Your task to perform on an android device: Show the shopping cart on walmart.com. Add "apple airpods pro" to the cart on walmart.com Image 0: 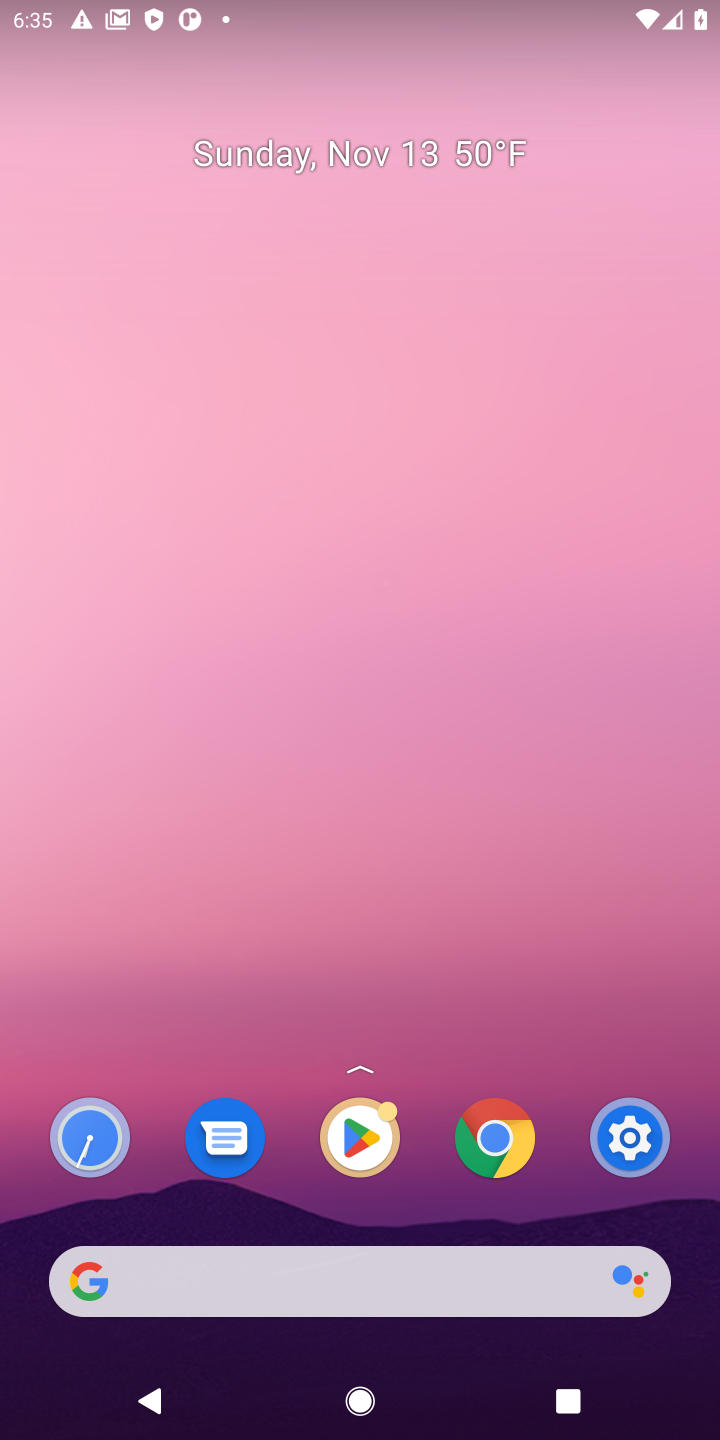
Step 0: drag from (311, 1173) to (206, 188)
Your task to perform on an android device: Show the shopping cart on walmart.com. Add "apple airpods pro" to the cart on walmart.com Image 1: 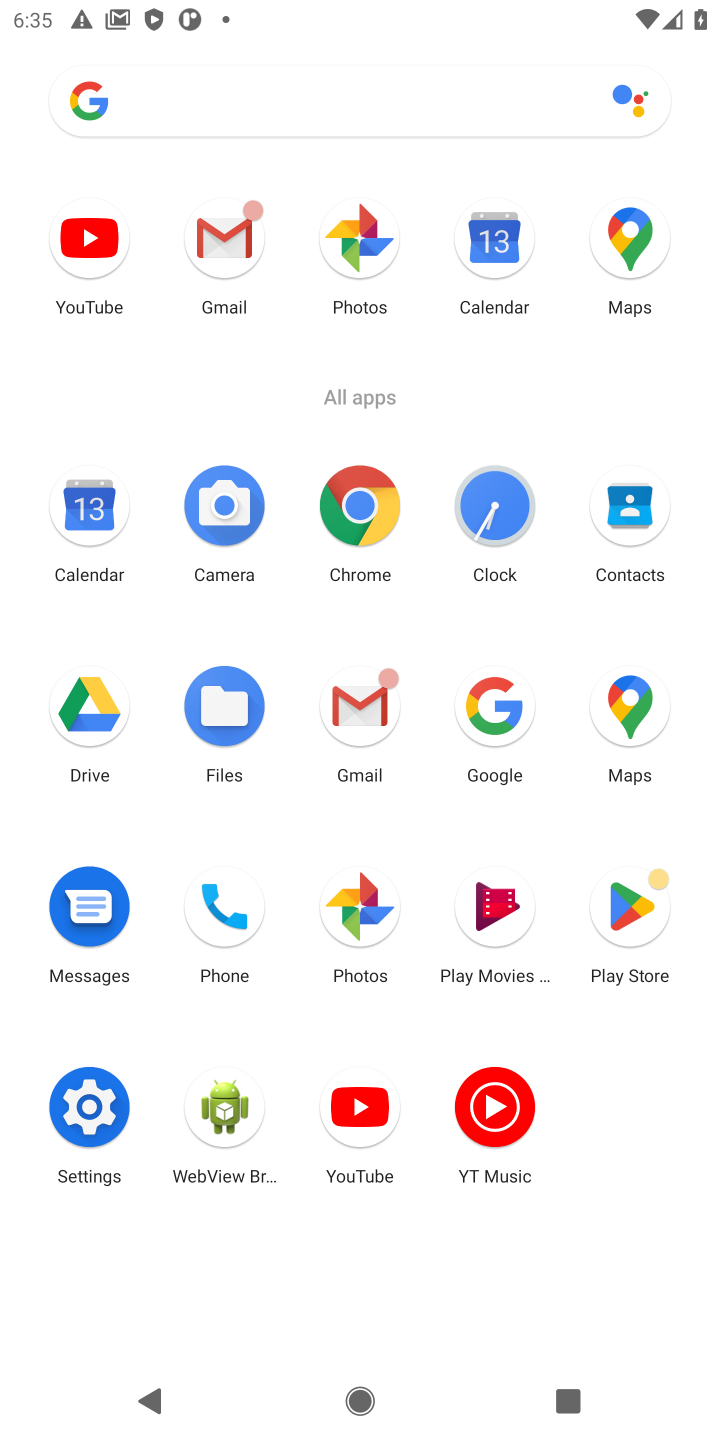
Step 1: click (354, 513)
Your task to perform on an android device: Show the shopping cart on walmart.com. Add "apple airpods pro" to the cart on walmart.com Image 2: 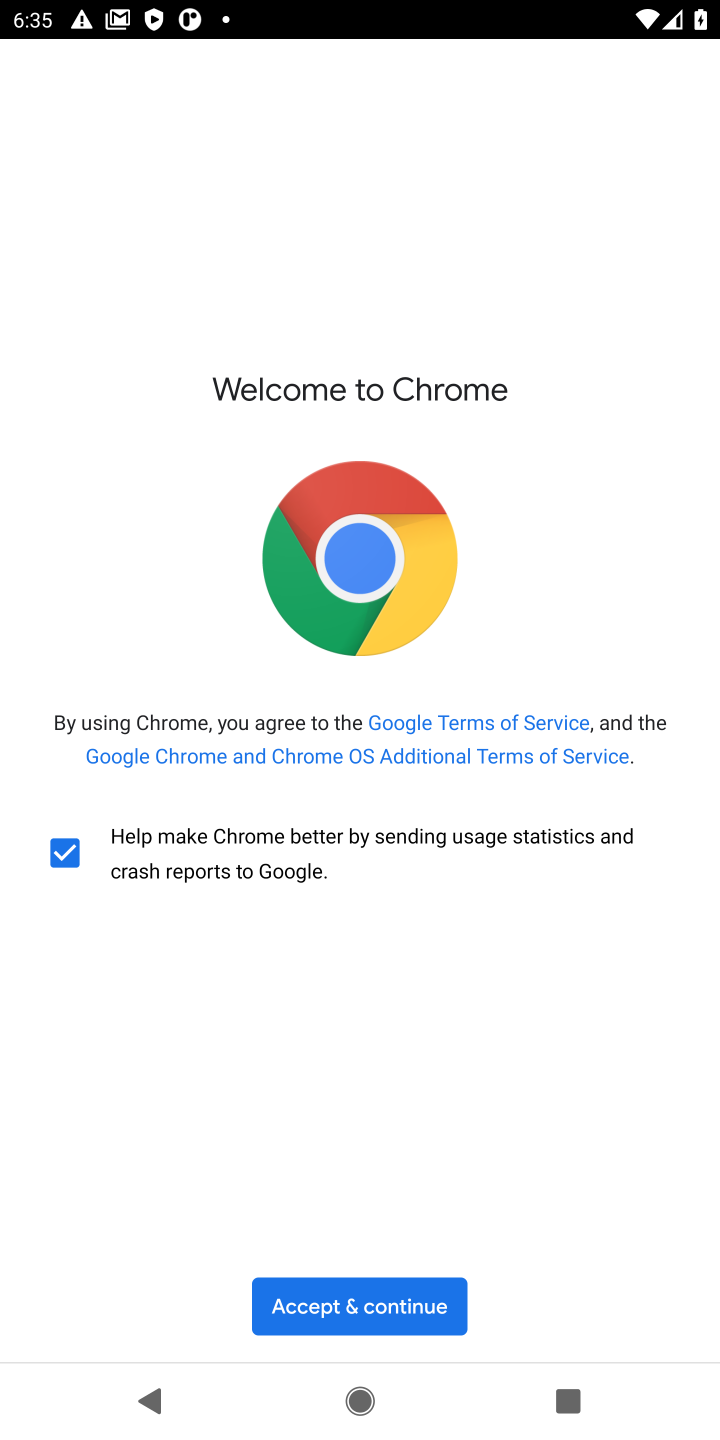
Step 2: click (311, 1290)
Your task to perform on an android device: Show the shopping cart on walmart.com. Add "apple airpods pro" to the cart on walmart.com Image 3: 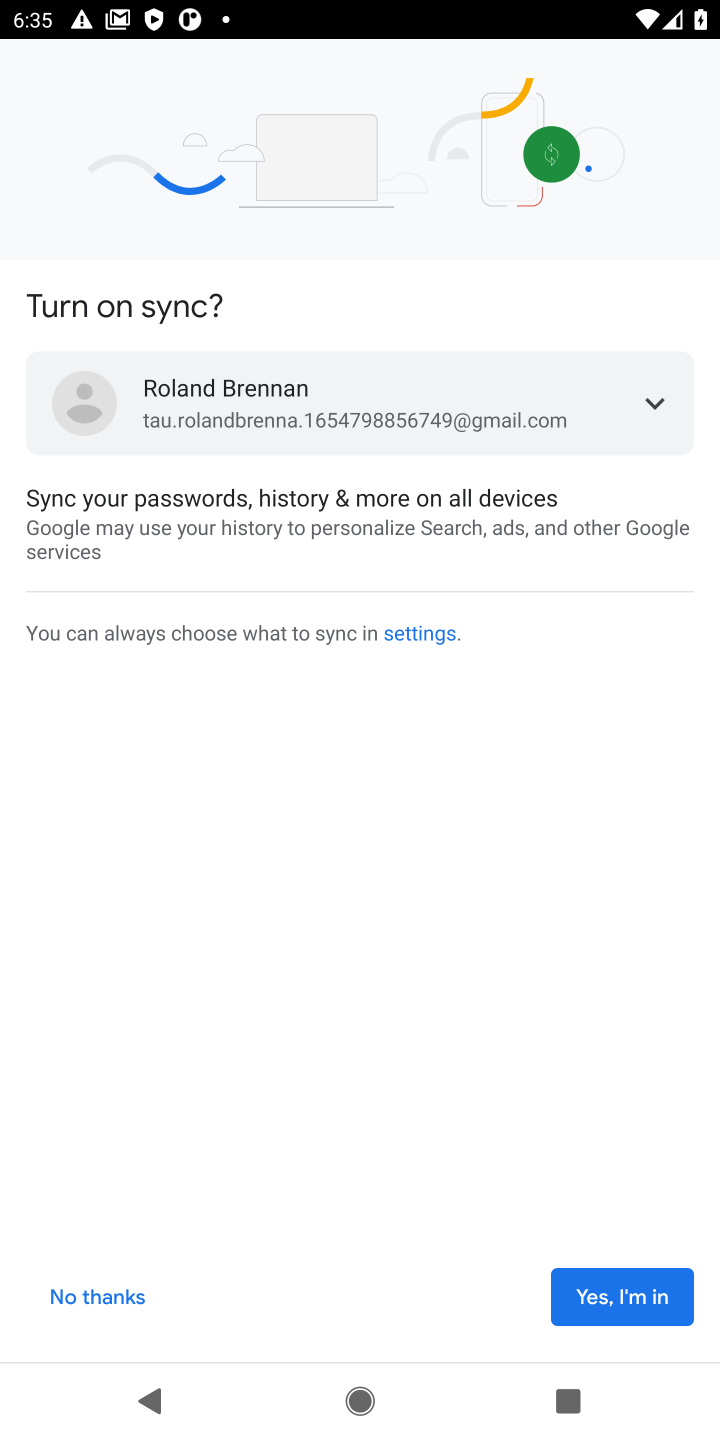
Step 3: click (633, 1288)
Your task to perform on an android device: Show the shopping cart on walmart.com. Add "apple airpods pro" to the cart on walmart.com Image 4: 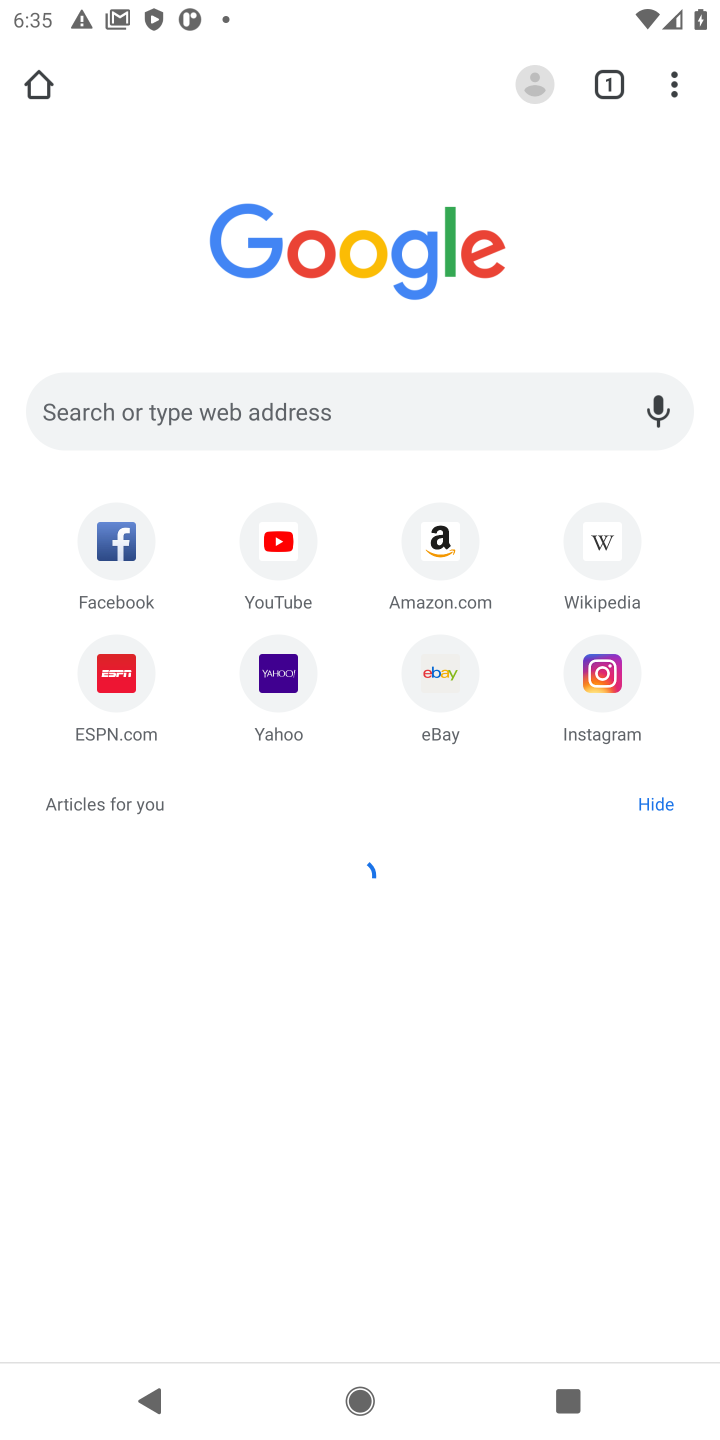
Step 4: click (127, 401)
Your task to perform on an android device: Show the shopping cart on walmart.com. Add "apple airpods pro" to the cart on walmart.com Image 5: 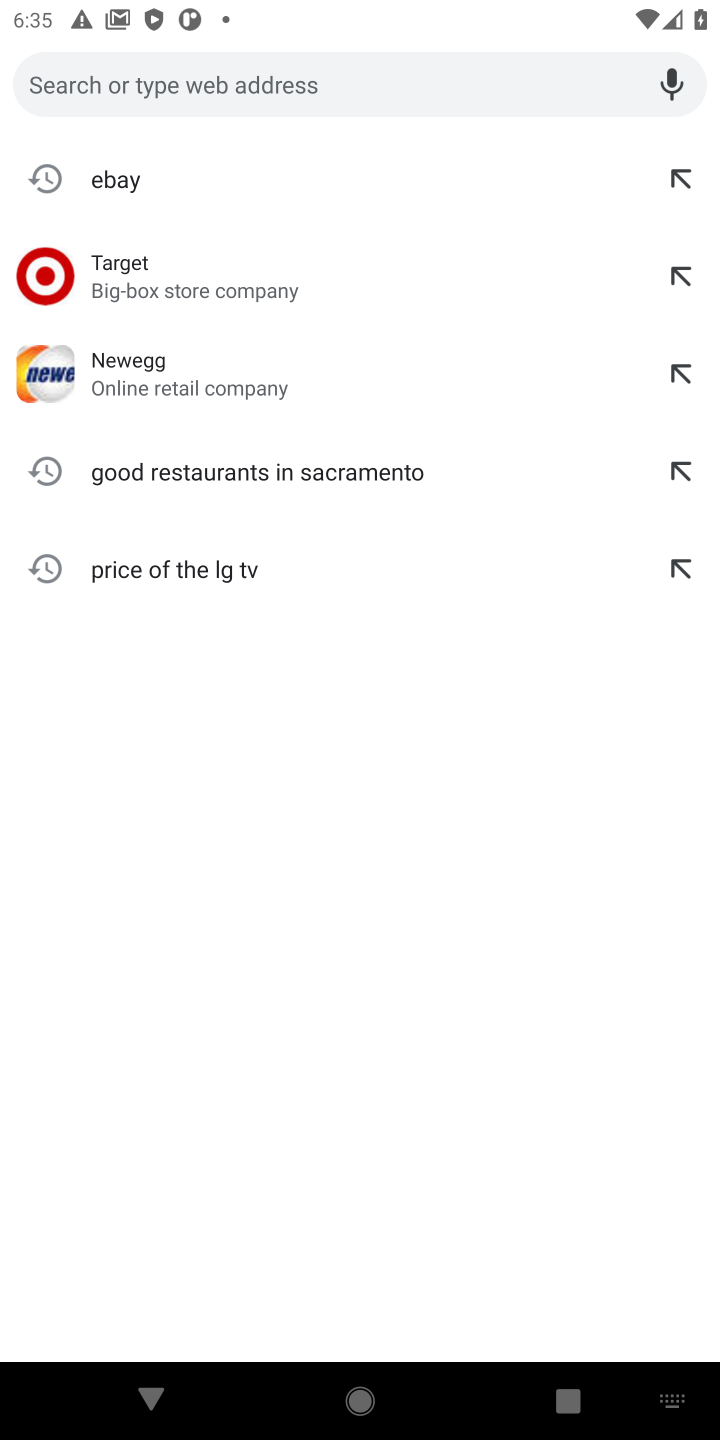
Step 5: type "walmart.com"
Your task to perform on an android device: Show the shopping cart on walmart.com. Add "apple airpods pro" to the cart on walmart.com Image 6: 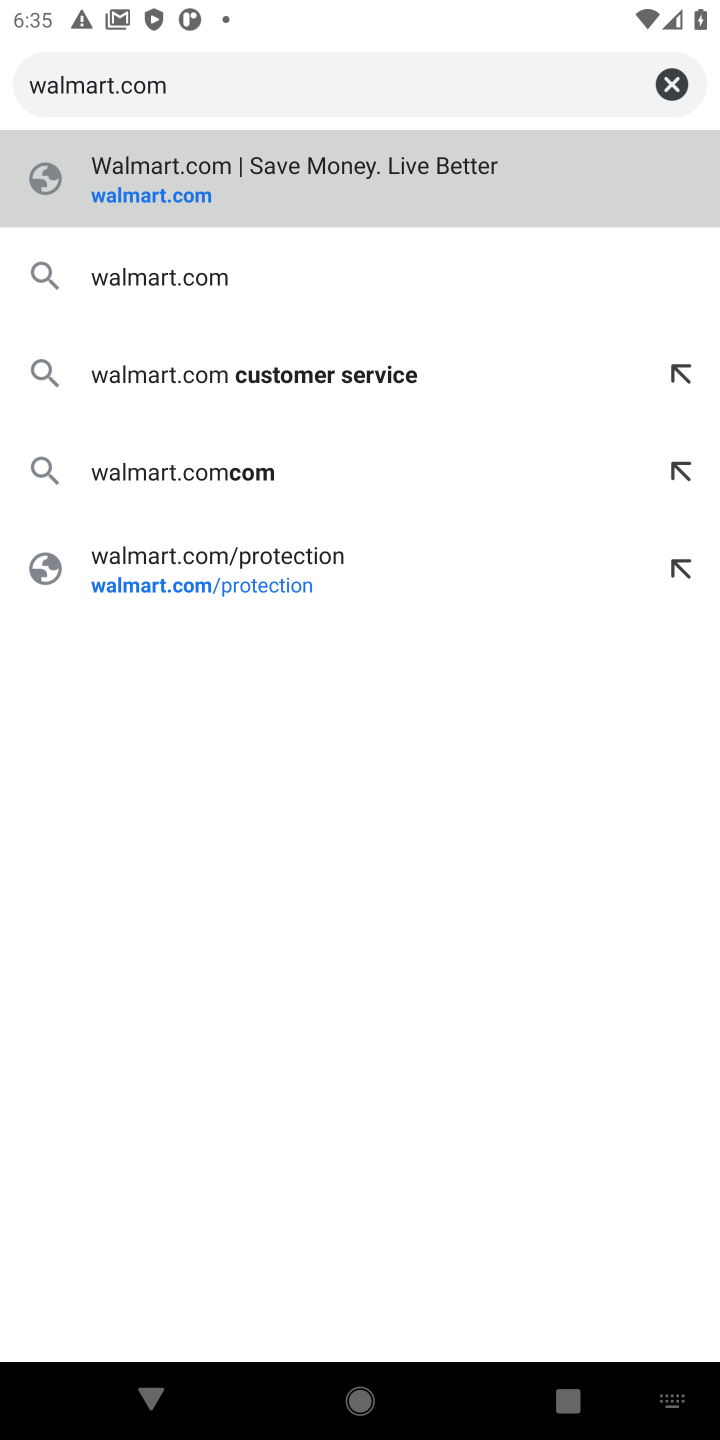
Step 6: press enter
Your task to perform on an android device: Show the shopping cart on walmart.com. Add "apple airpods pro" to the cart on walmart.com Image 7: 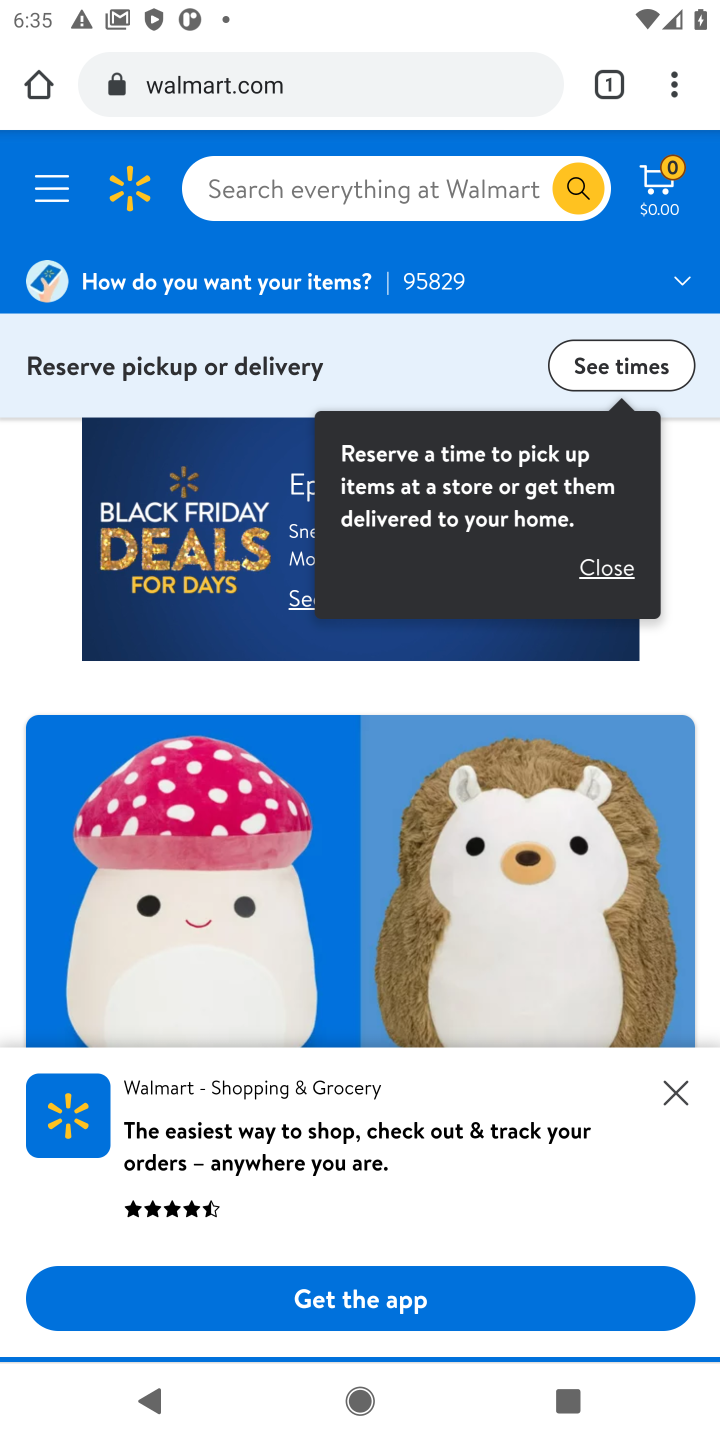
Step 7: click (318, 154)
Your task to perform on an android device: Show the shopping cart on walmart.com. Add "apple airpods pro" to the cart on walmart.com Image 8: 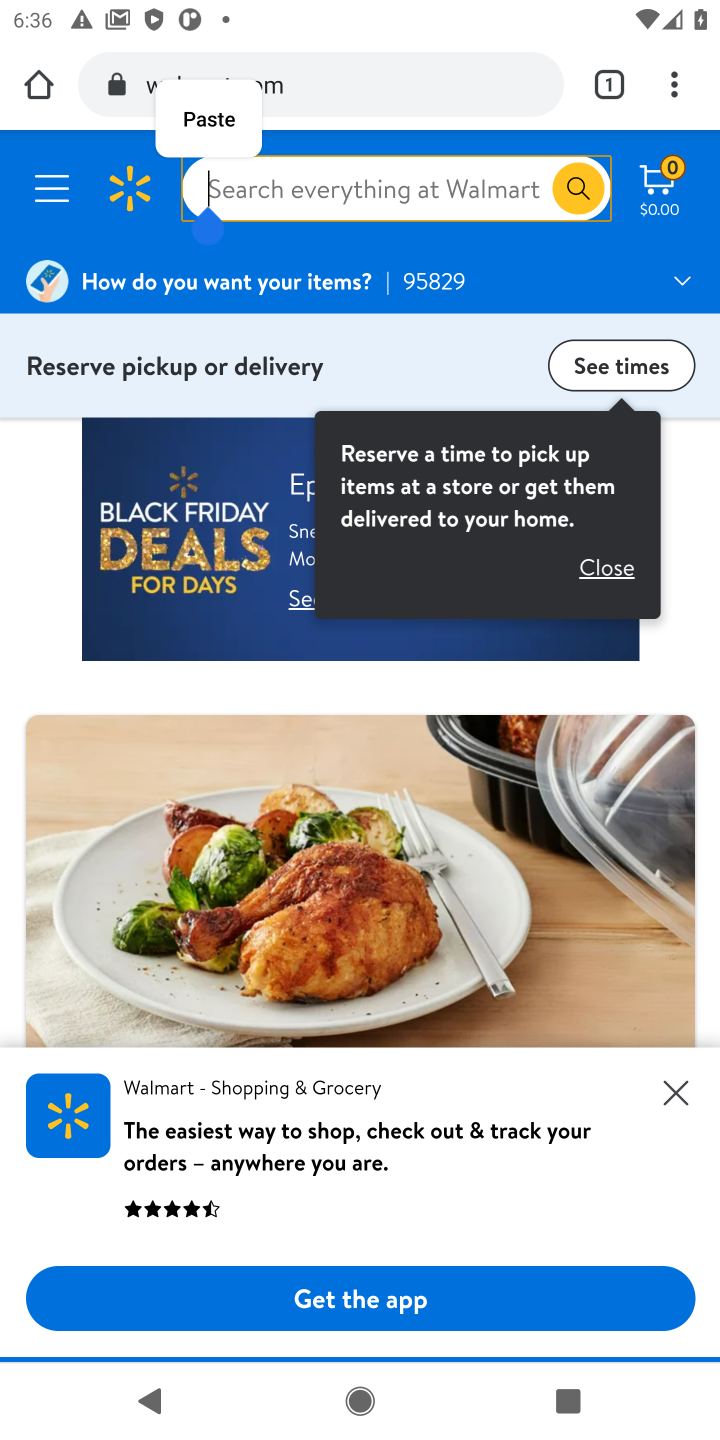
Step 8: type "apple airpods pro"
Your task to perform on an android device: Show the shopping cart on walmart.com. Add "apple airpods pro" to the cart on walmart.com Image 9: 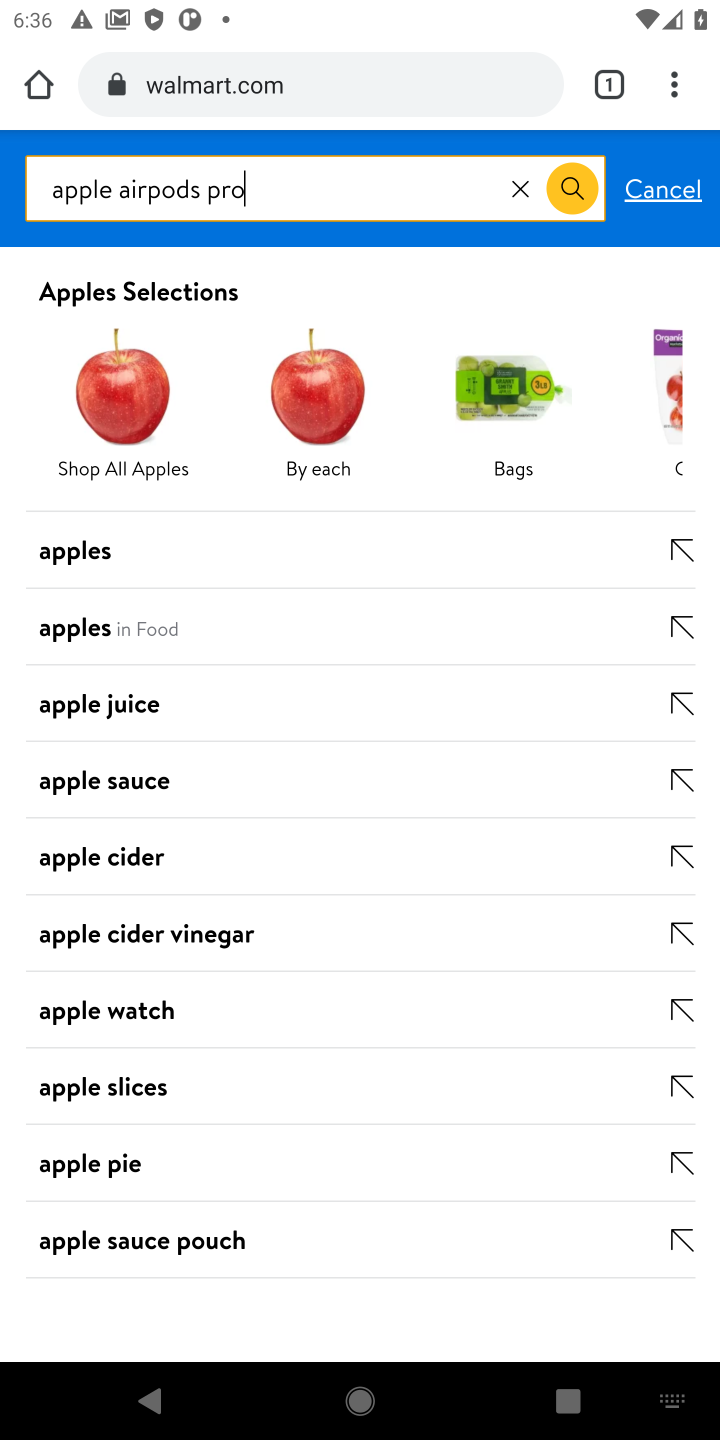
Step 9: press enter
Your task to perform on an android device: Show the shopping cart on walmart.com. Add "apple airpods pro" to the cart on walmart.com Image 10: 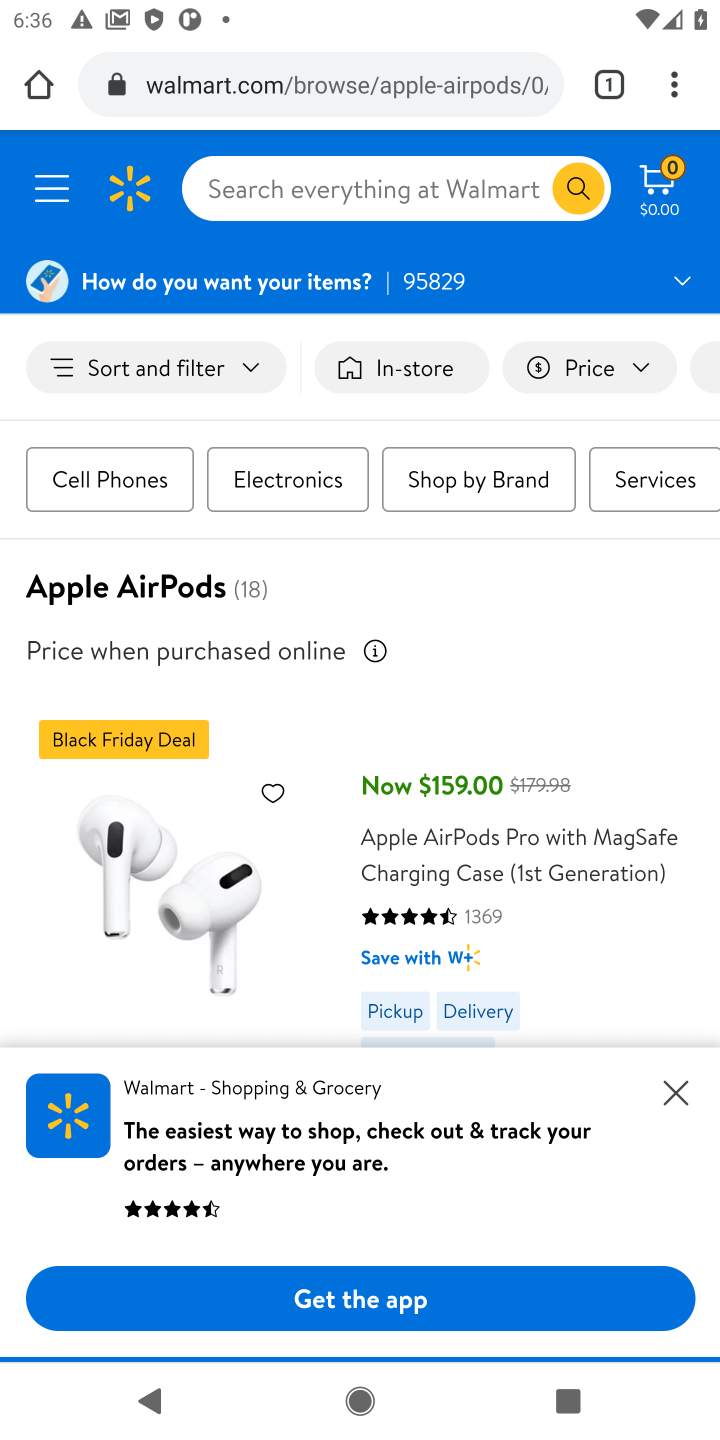
Step 10: drag from (564, 852) to (513, 490)
Your task to perform on an android device: Show the shopping cart on walmart.com. Add "apple airpods pro" to the cart on walmart.com Image 11: 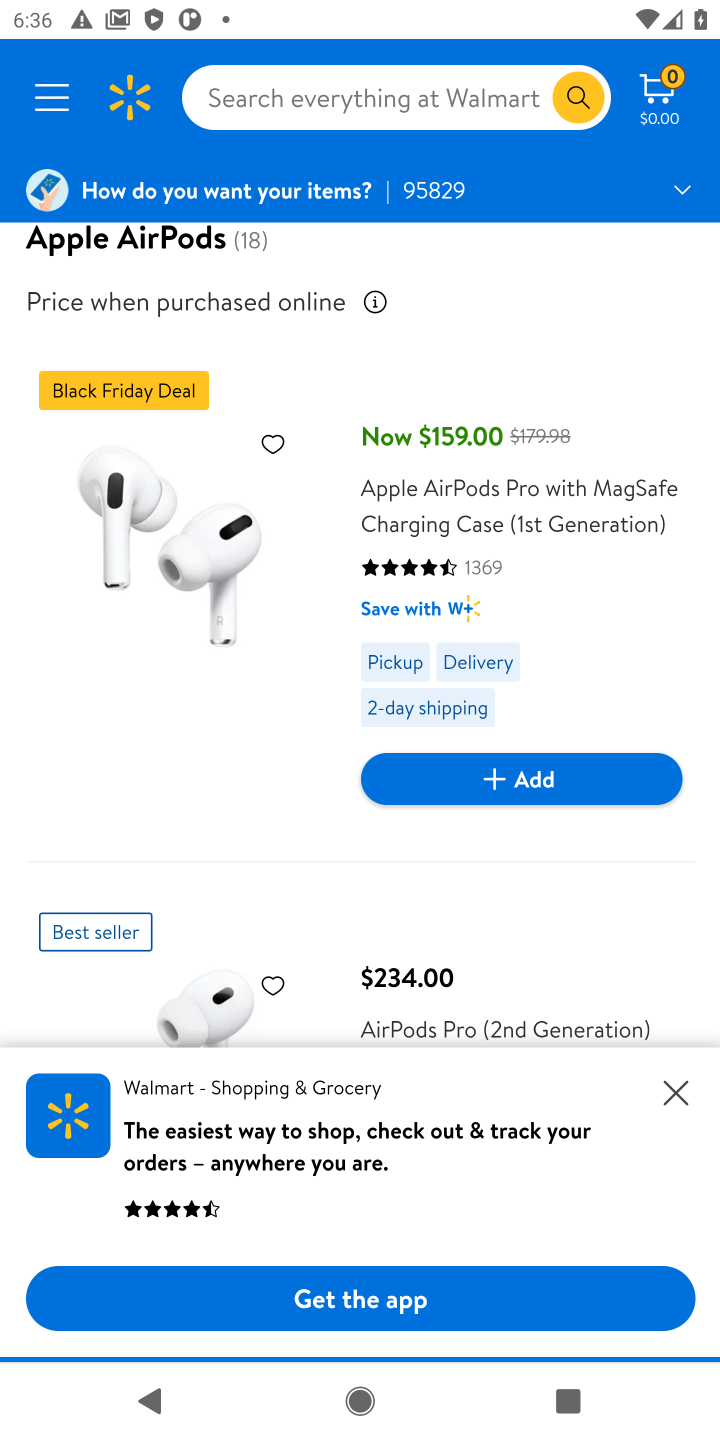
Step 11: click (541, 777)
Your task to perform on an android device: Show the shopping cart on walmart.com. Add "apple airpods pro" to the cart on walmart.com Image 12: 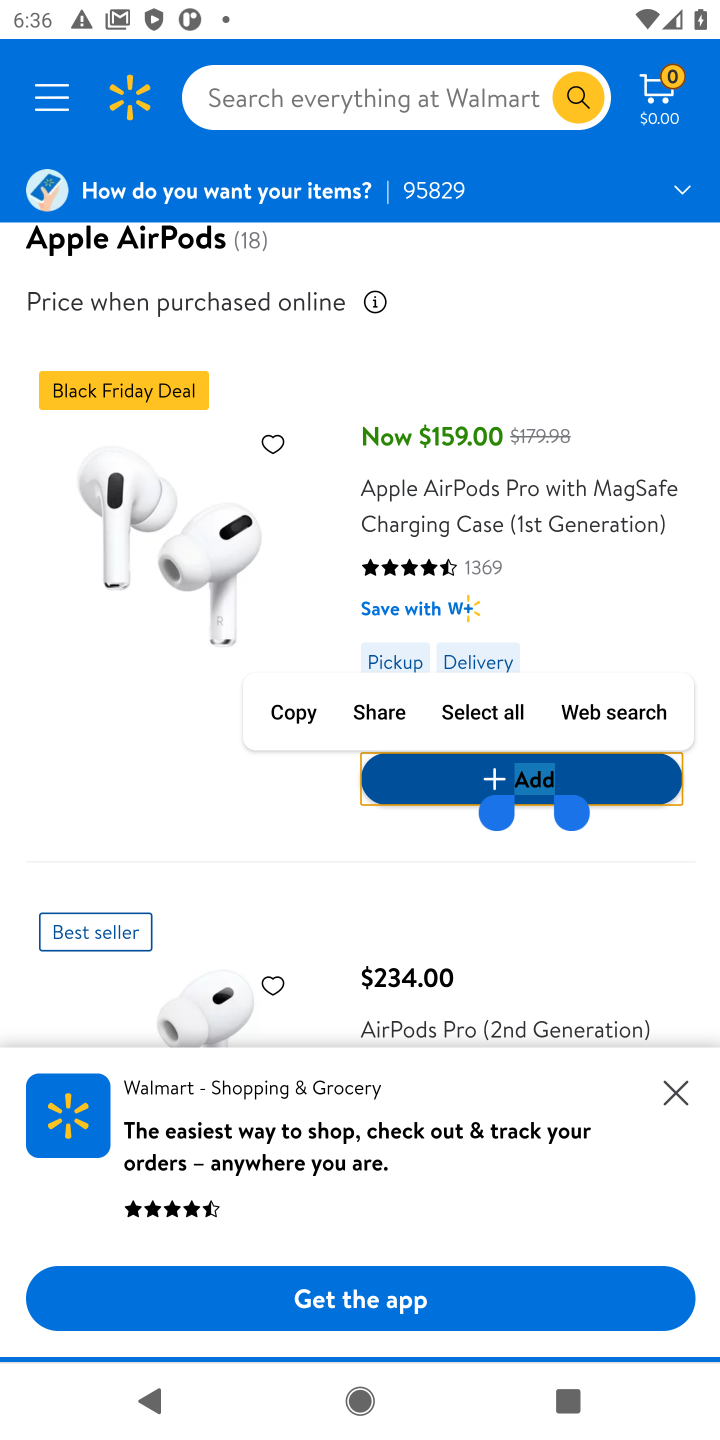
Step 12: click (592, 773)
Your task to perform on an android device: Show the shopping cart on walmart.com. Add "apple airpods pro" to the cart on walmart.com Image 13: 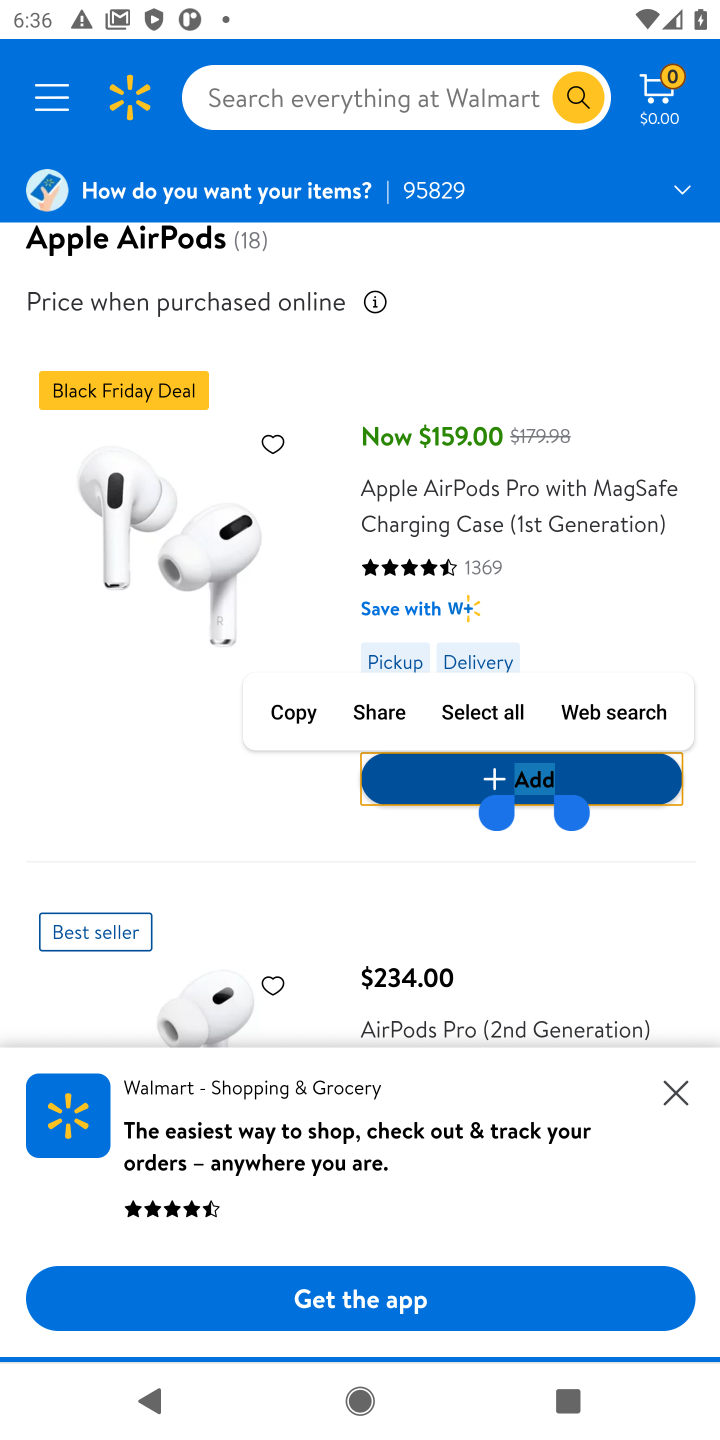
Step 13: click (592, 768)
Your task to perform on an android device: Show the shopping cart on walmart.com. Add "apple airpods pro" to the cart on walmart.com Image 14: 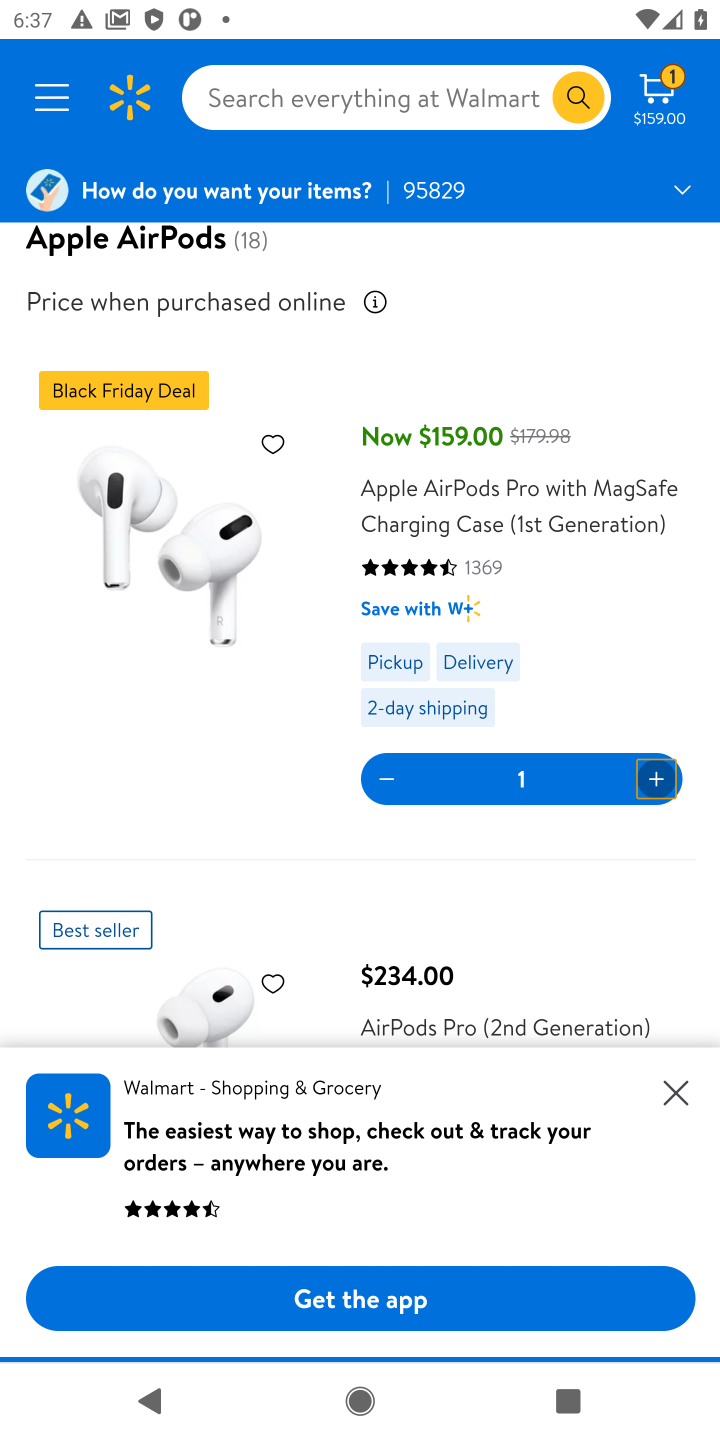
Step 14: task complete